Your task to perform on an android device: Open Yahoo.com Image 0: 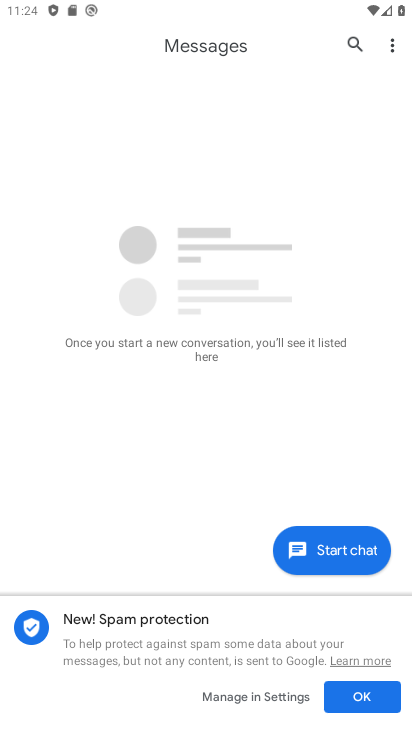
Step 0: press back button
Your task to perform on an android device: Open Yahoo.com Image 1: 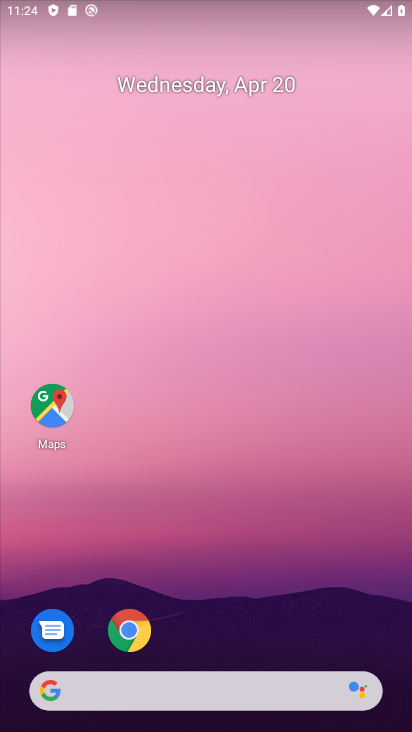
Step 1: click (137, 640)
Your task to perform on an android device: Open Yahoo.com Image 2: 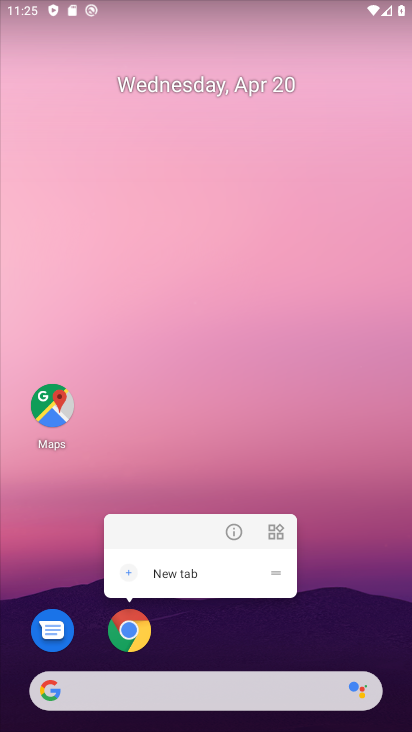
Step 2: click (136, 636)
Your task to perform on an android device: Open Yahoo.com Image 3: 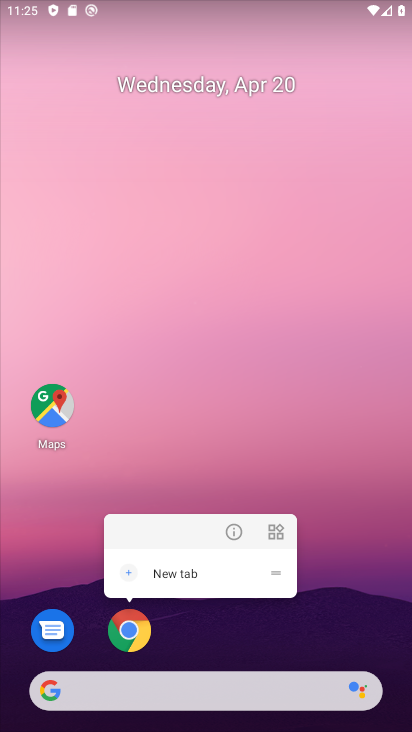
Step 3: click (137, 644)
Your task to perform on an android device: Open Yahoo.com Image 4: 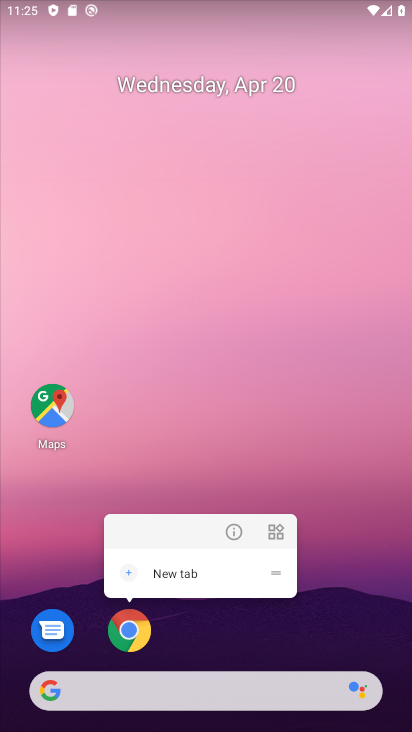
Step 4: click (137, 634)
Your task to perform on an android device: Open Yahoo.com Image 5: 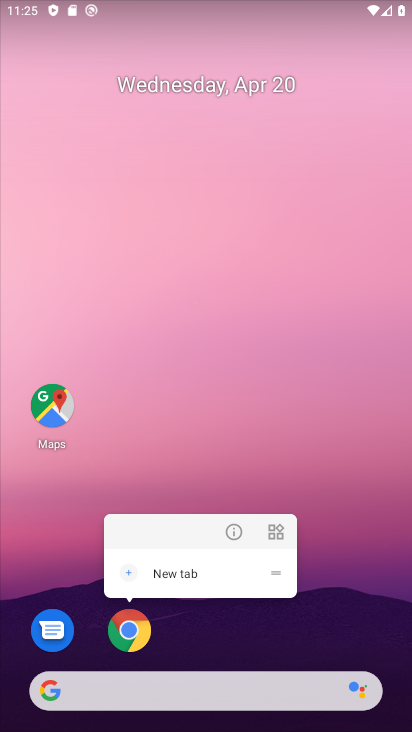
Step 5: drag from (239, 652) to (410, 124)
Your task to perform on an android device: Open Yahoo.com Image 6: 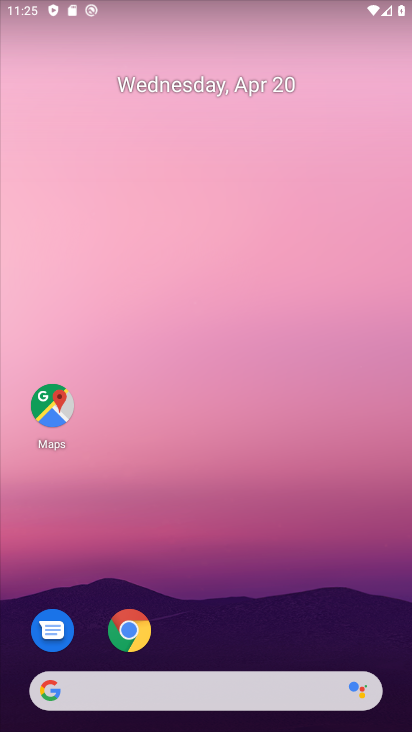
Step 6: drag from (255, 560) to (394, 29)
Your task to perform on an android device: Open Yahoo.com Image 7: 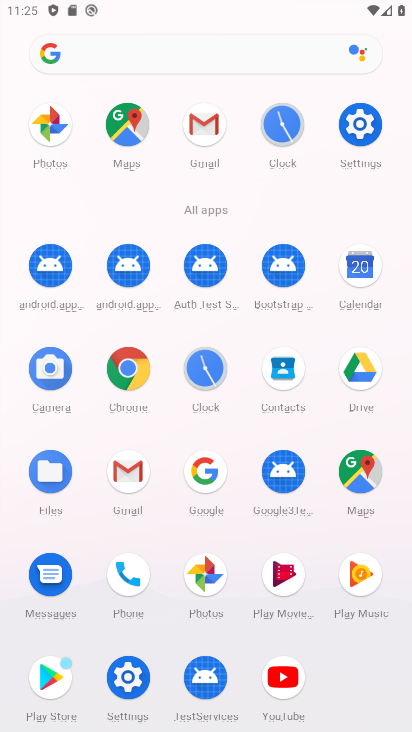
Step 7: click (136, 371)
Your task to perform on an android device: Open Yahoo.com Image 8: 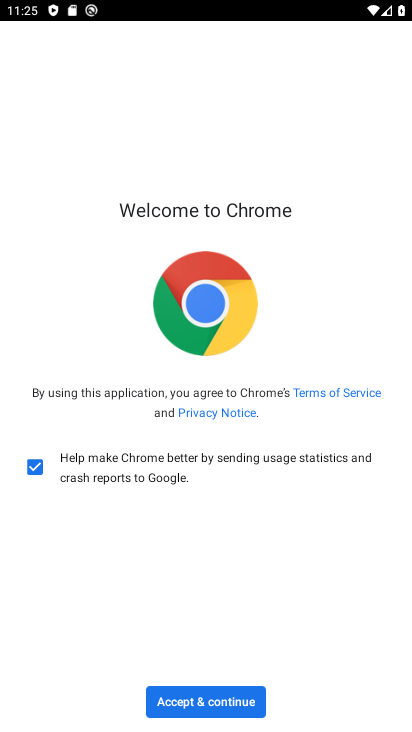
Step 8: click (234, 697)
Your task to perform on an android device: Open Yahoo.com Image 9: 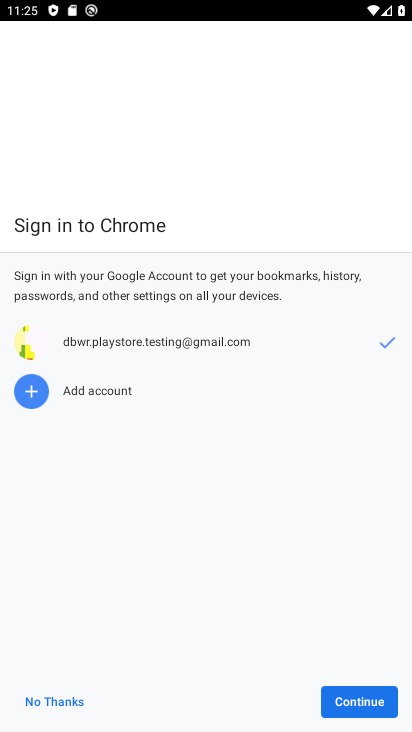
Step 9: click (363, 692)
Your task to perform on an android device: Open Yahoo.com Image 10: 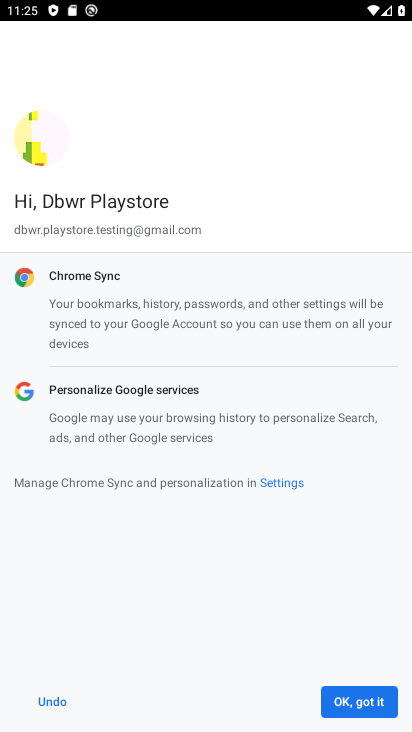
Step 10: click (375, 704)
Your task to perform on an android device: Open Yahoo.com Image 11: 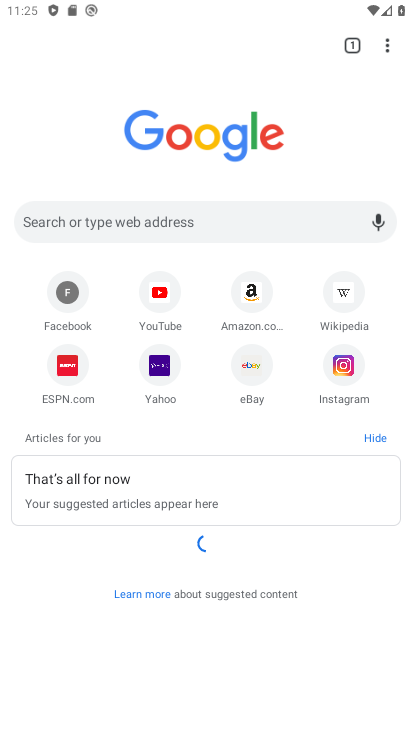
Step 11: click (180, 379)
Your task to perform on an android device: Open Yahoo.com Image 12: 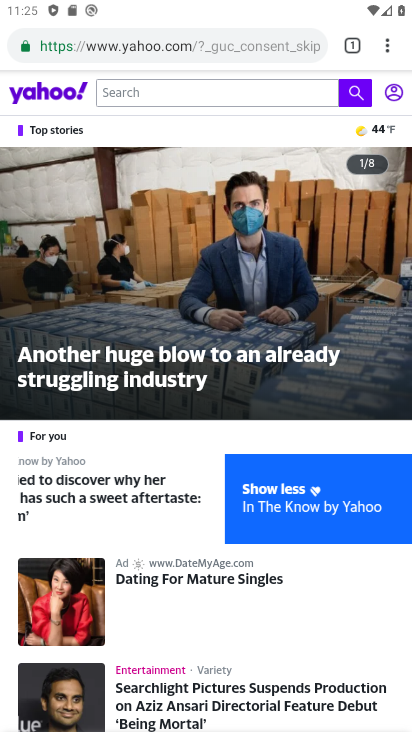
Step 12: task complete